Your task to perform on an android device: Search for alienware area 51 on walmart, select the first entry, add it to the cart, then select checkout. Image 0: 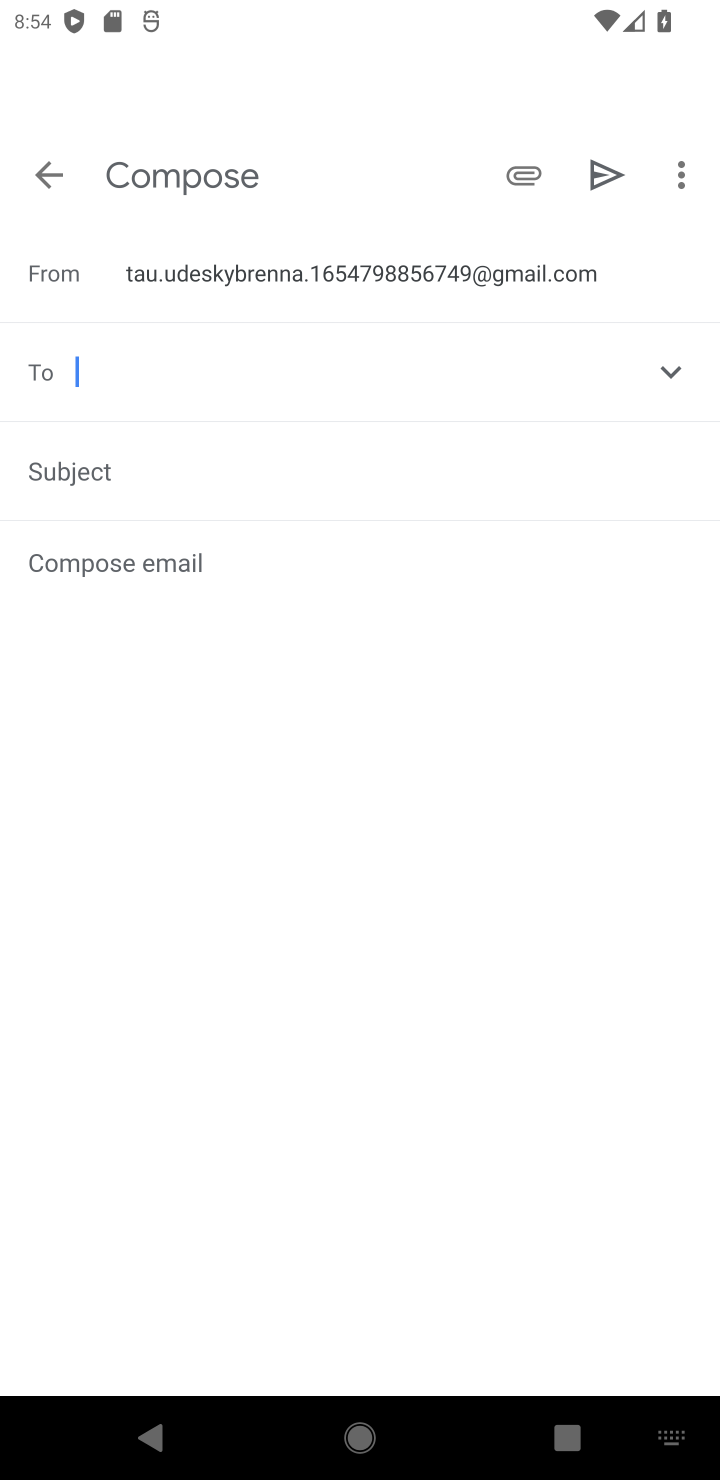
Step 0: press home button
Your task to perform on an android device: Search for alienware area 51 on walmart, select the first entry, add it to the cart, then select checkout. Image 1: 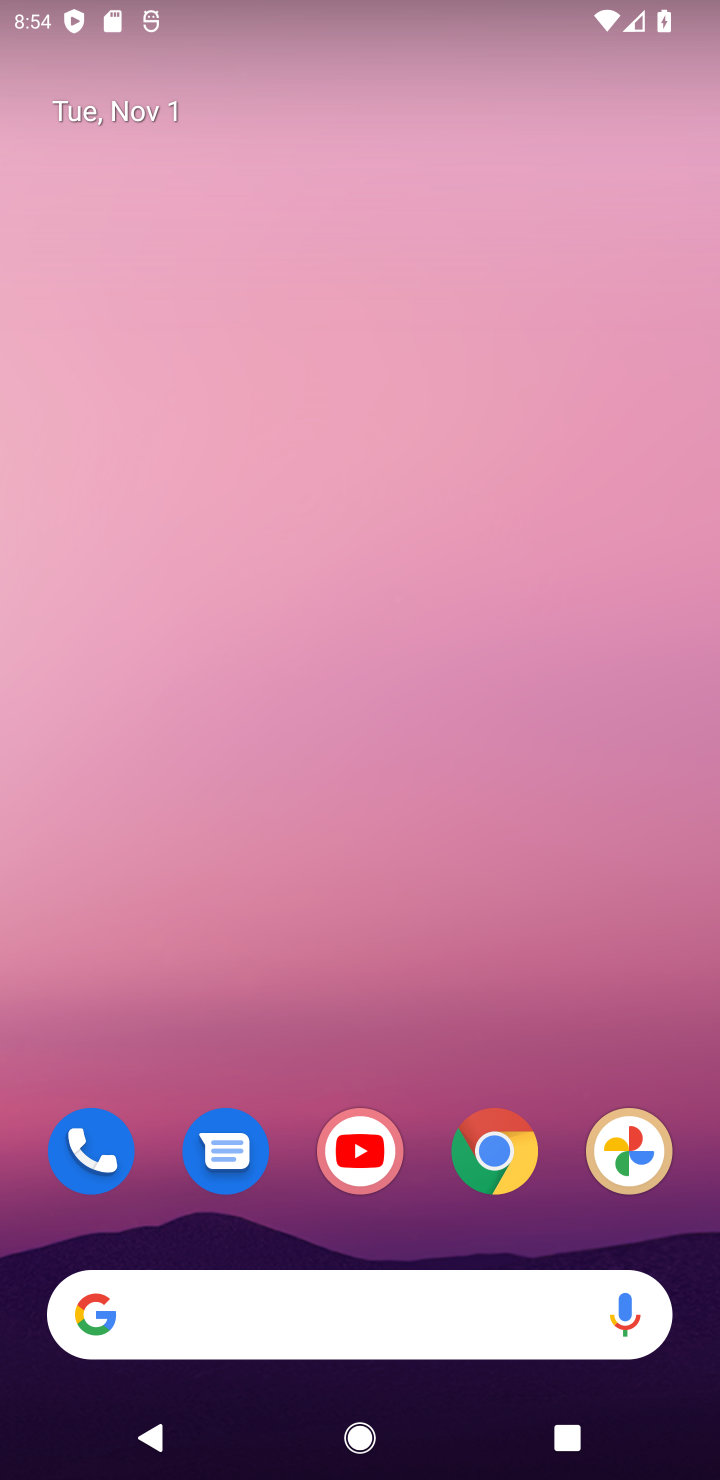
Step 1: click (490, 1171)
Your task to perform on an android device: Search for alienware area 51 on walmart, select the first entry, add it to the cart, then select checkout. Image 2: 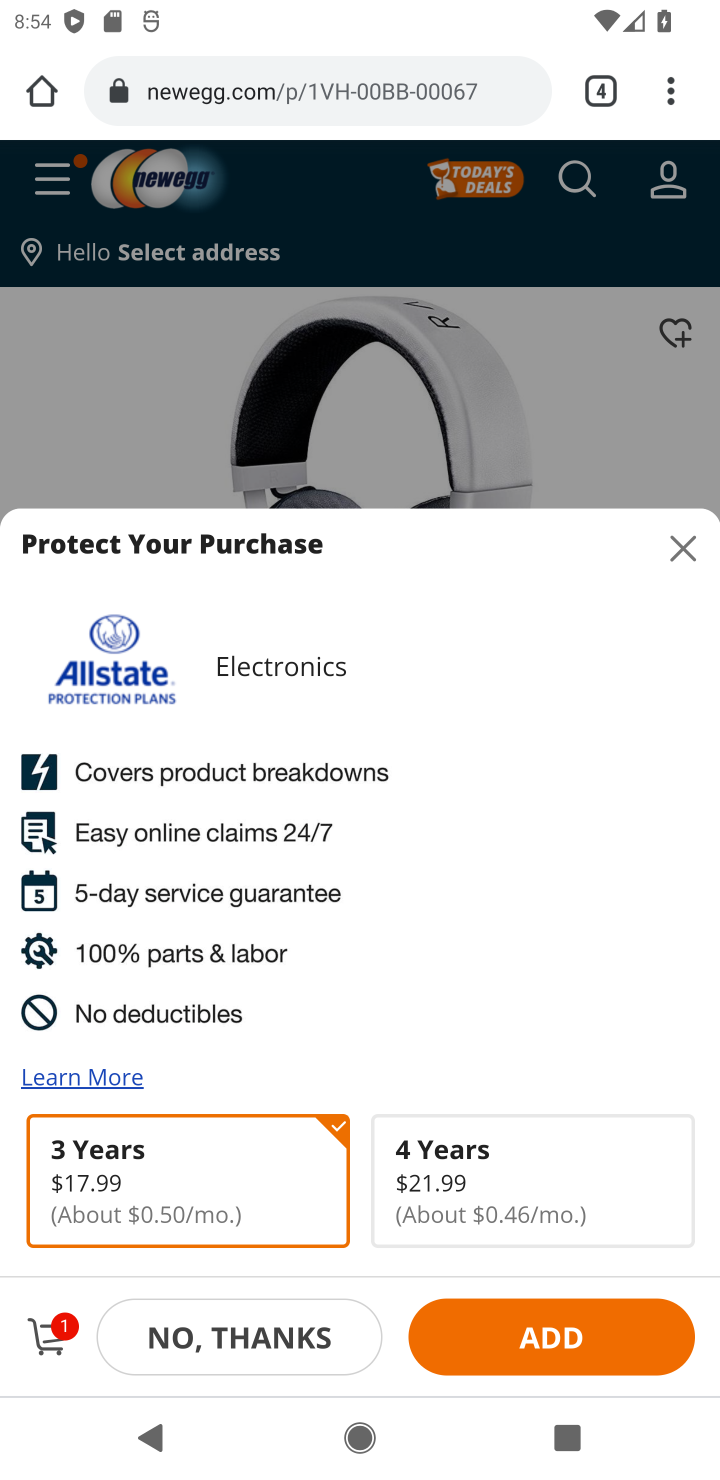
Step 2: click (596, 102)
Your task to perform on an android device: Search for alienware area 51 on walmart, select the first entry, add it to the cart, then select checkout. Image 3: 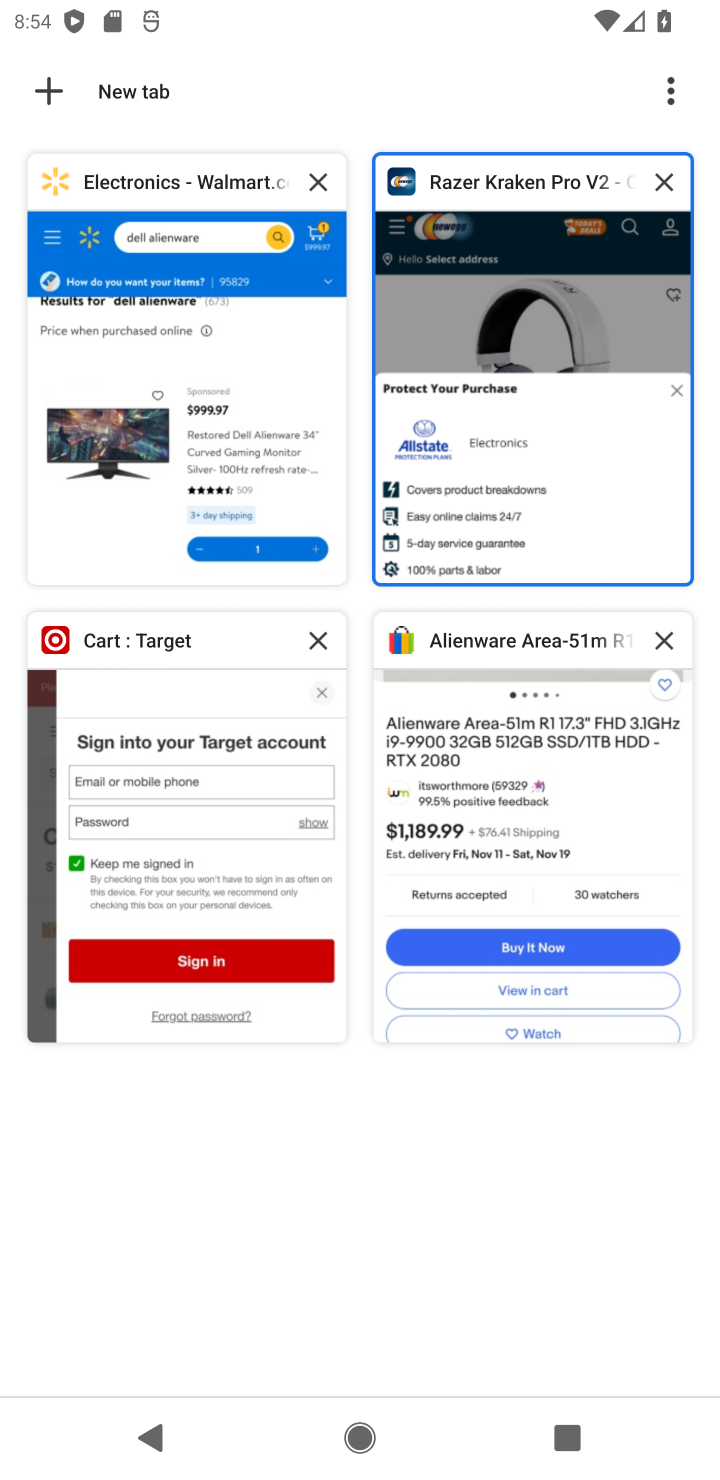
Step 3: click (53, 88)
Your task to perform on an android device: Search for alienware area 51 on walmart, select the first entry, add it to the cart, then select checkout. Image 4: 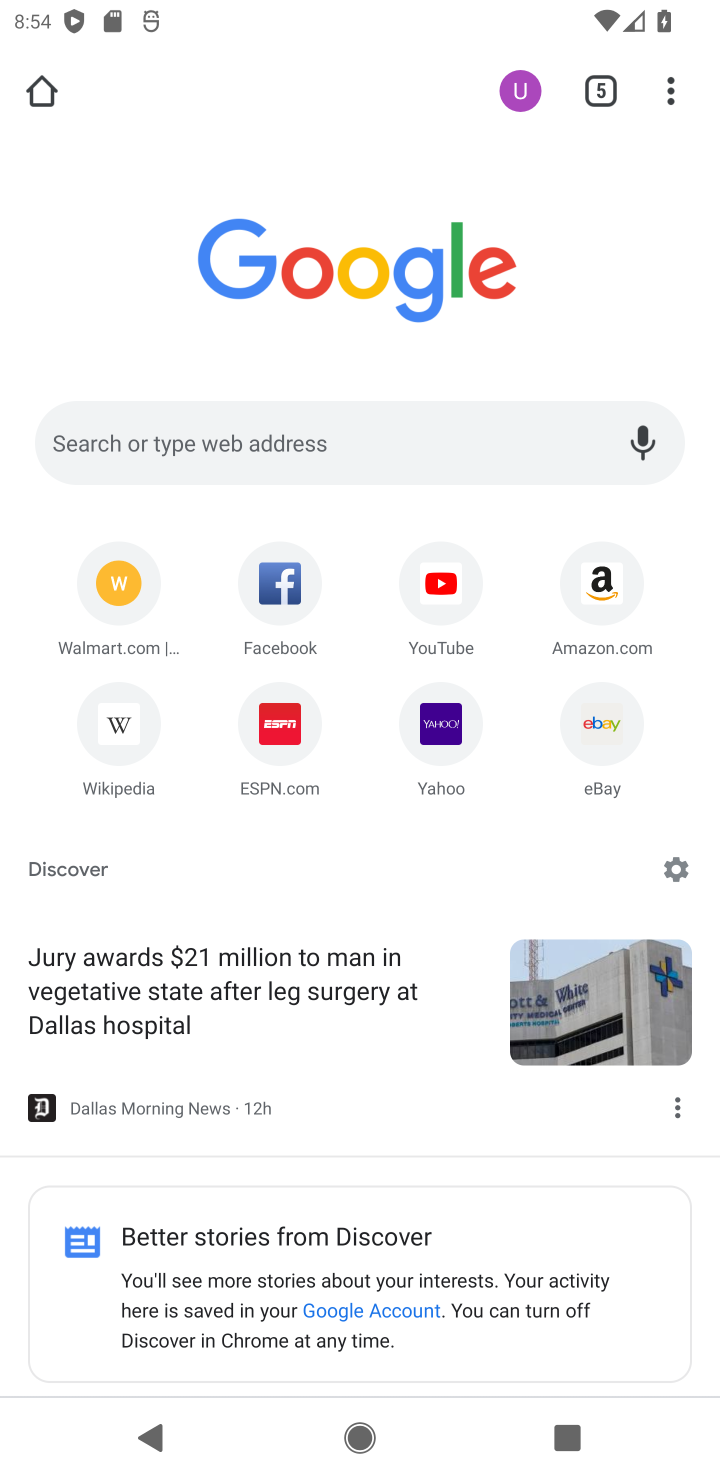
Step 4: click (198, 425)
Your task to perform on an android device: Search for alienware area 51 on walmart, select the first entry, add it to the cart, then select checkout. Image 5: 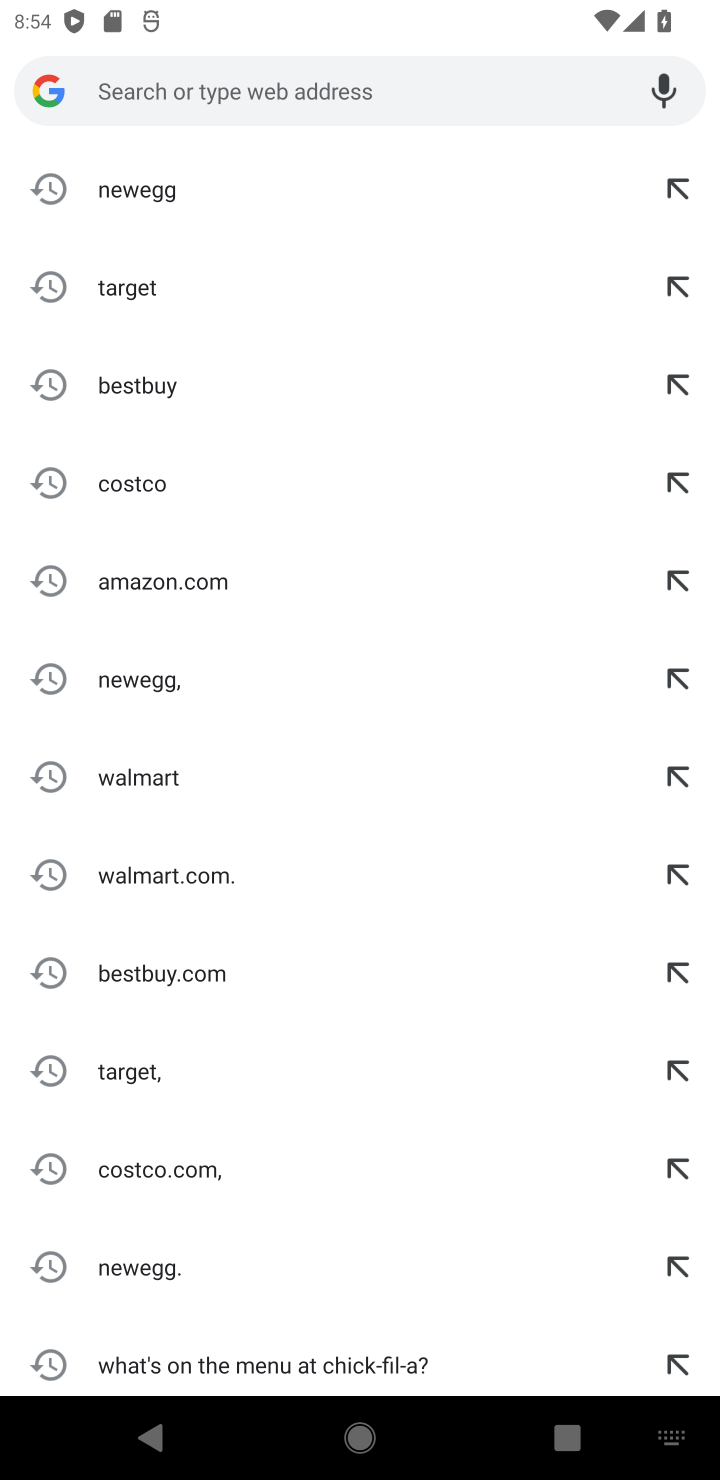
Step 5: type "walmart"
Your task to perform on an android device: Search for alienware area 51 on walmart, select the first entry, add it to the cart, then select checkout. Image 6: 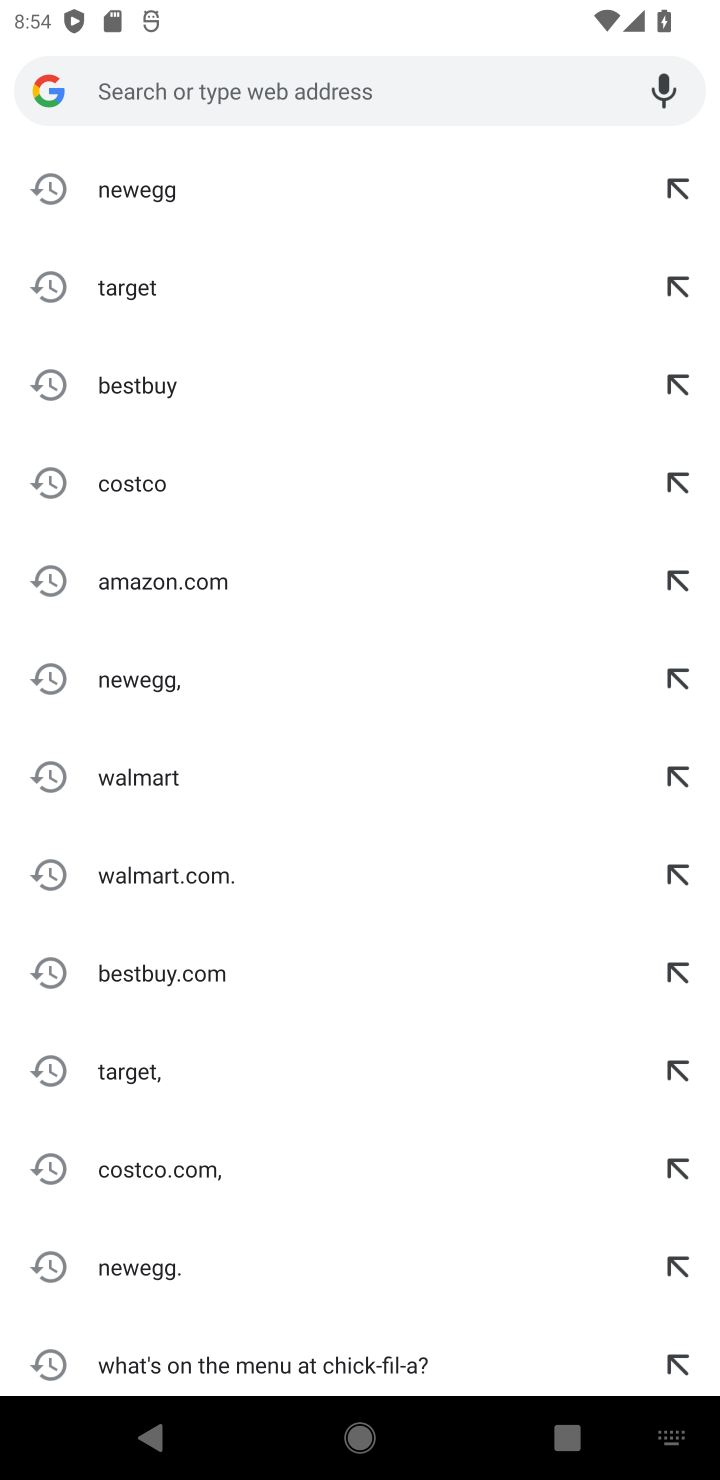
Step 6: click (167, 774)
Your task to perform on an android device: Search for alienware area 51 on walmart, select the first entry, add it to the cart, then select checkout. Image 7: 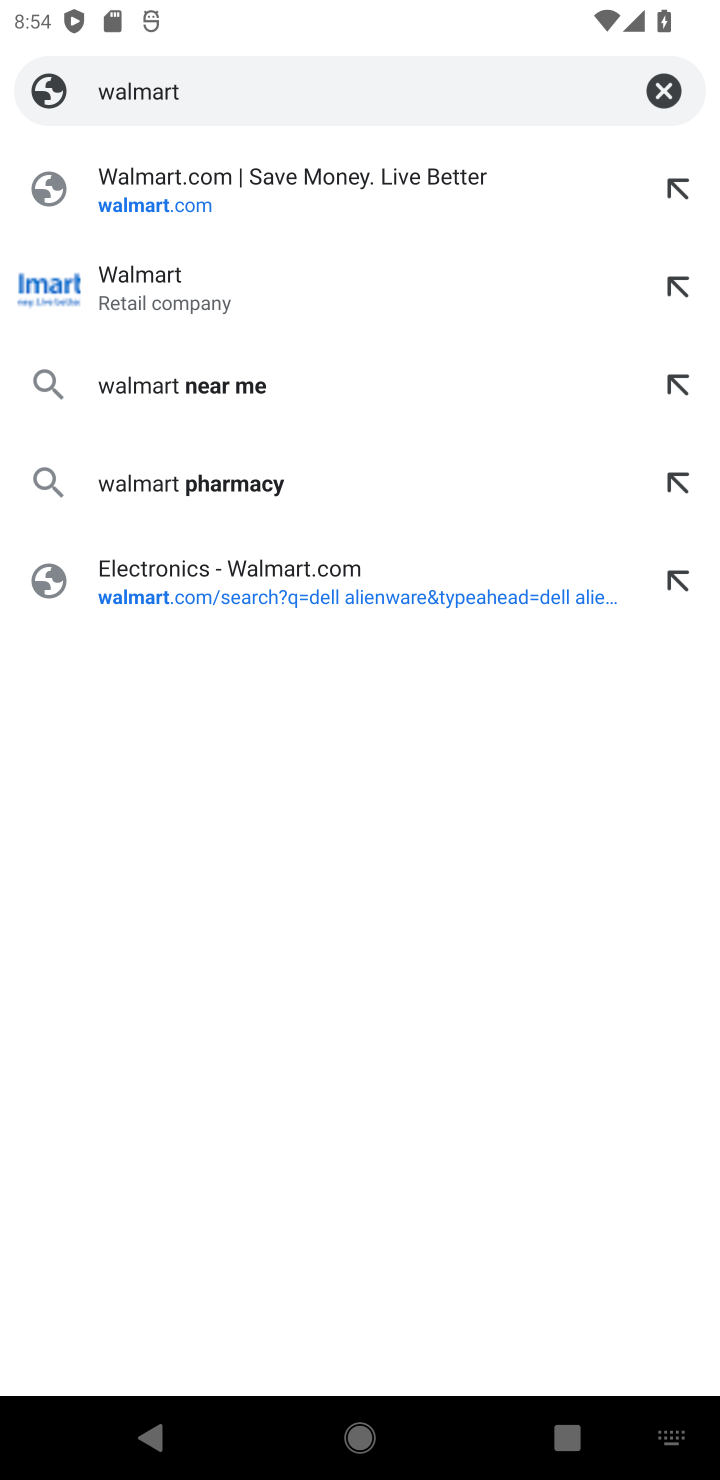
Step 7: click (120, 189)
Your task to perform on an android device: Search for alienware area 51 on walmart, select the first entry, add it to the cart, then select checkout. Image 8: 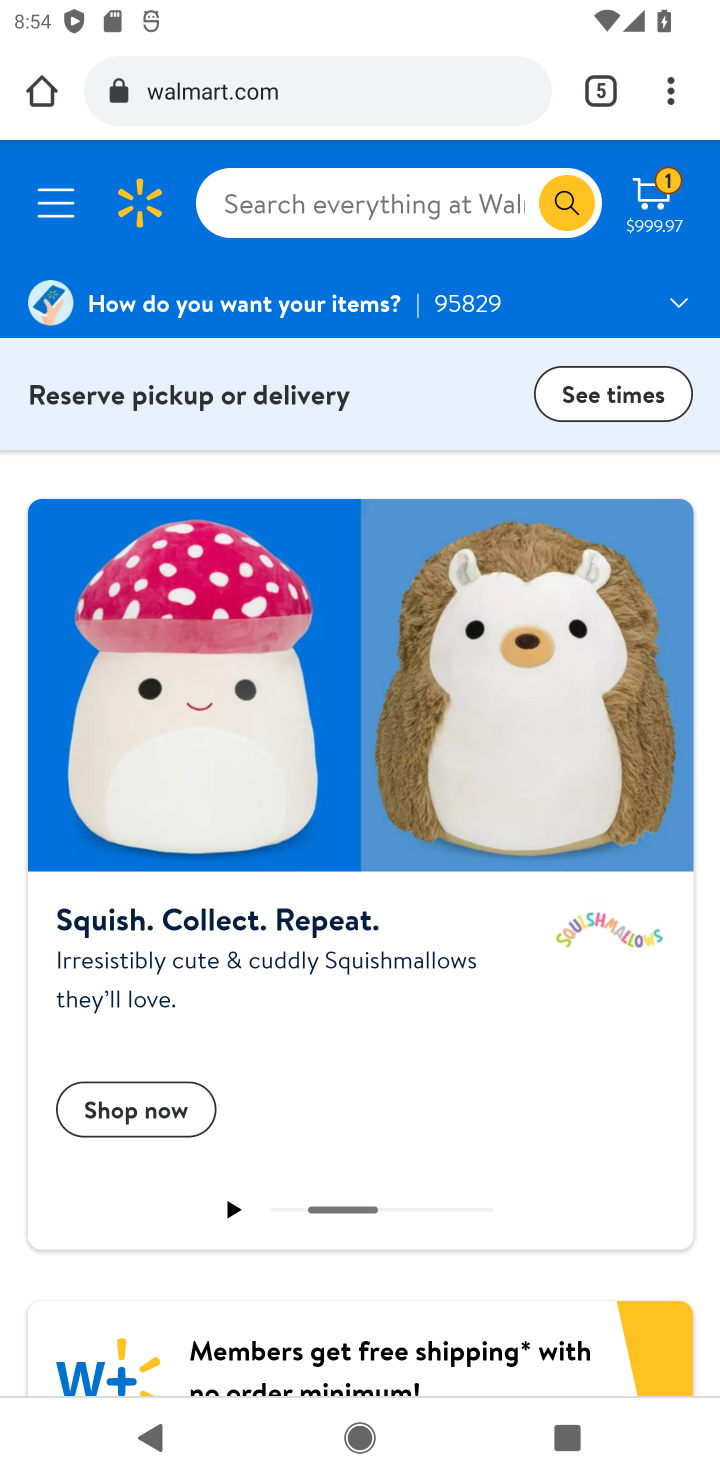
Step 8: click (361, 195)
Your task to perform on an android device: Search for alienware area 51 on walmart, select the first entry, add it to the cart, then select checkout. Image 9: 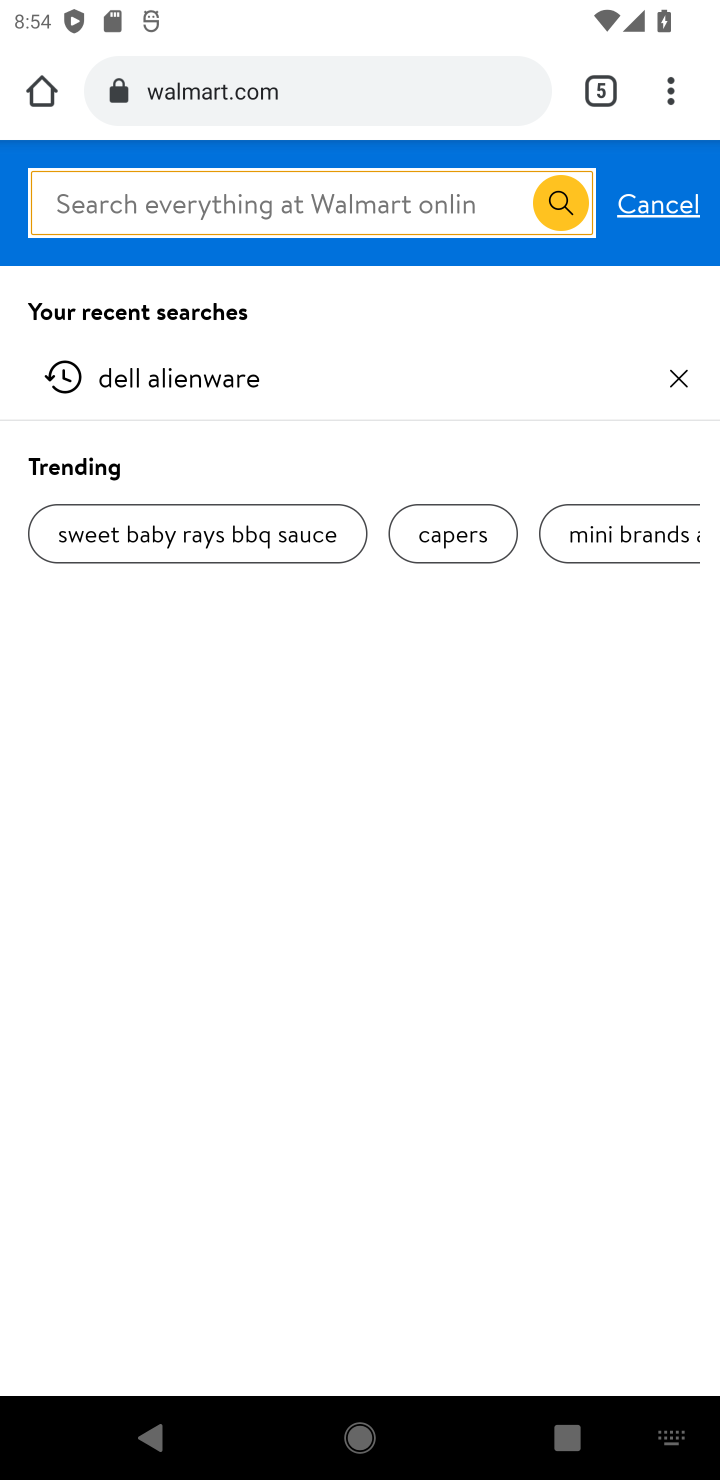
Step 9: type "alienware area 51"
Your task to perform on an android device: Search for alienware area 51 on walmart, select the first entry, add it to the cart, then select checkout. Image 10: 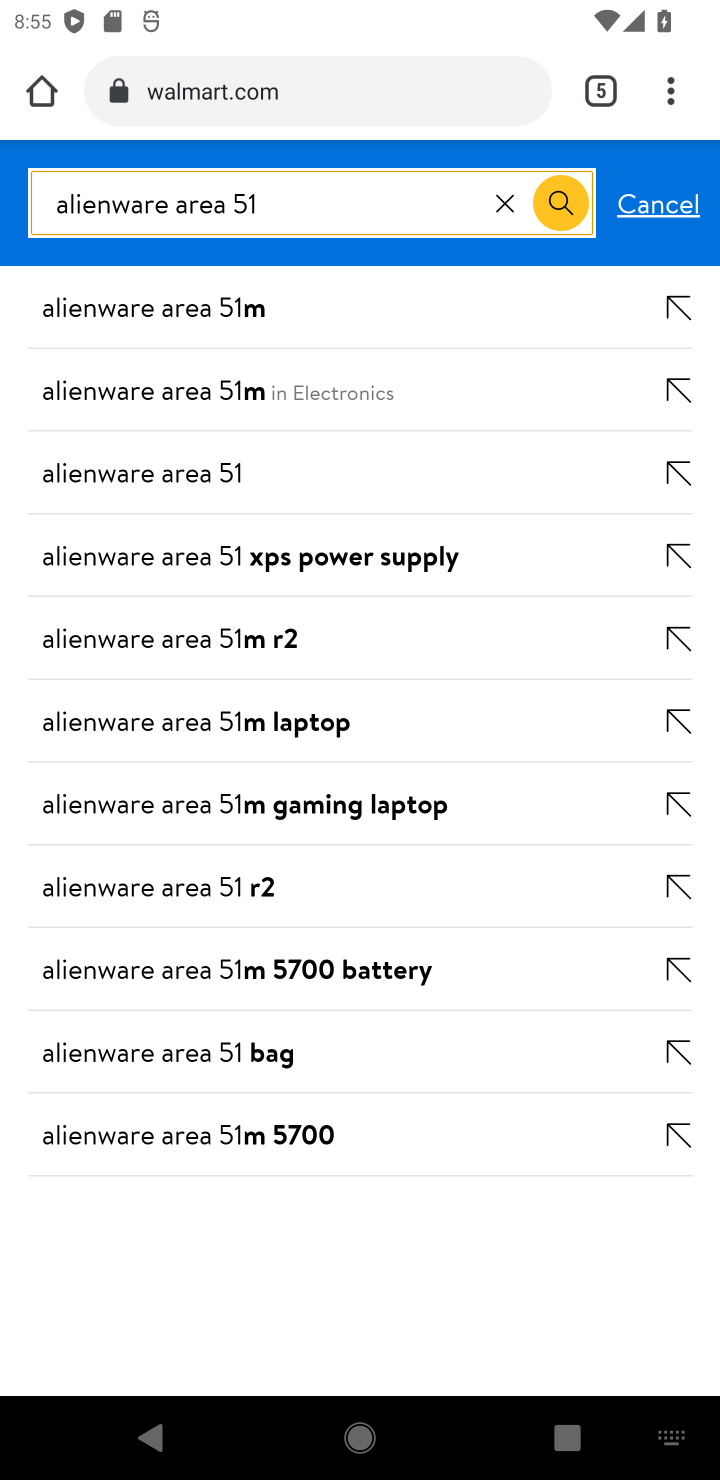
Step 10: click (250, 389)
Your task to perform on an android device: Search for alienware area 51 on walmart, select the first entry, add it to the cart, then select checkout. Image 11: 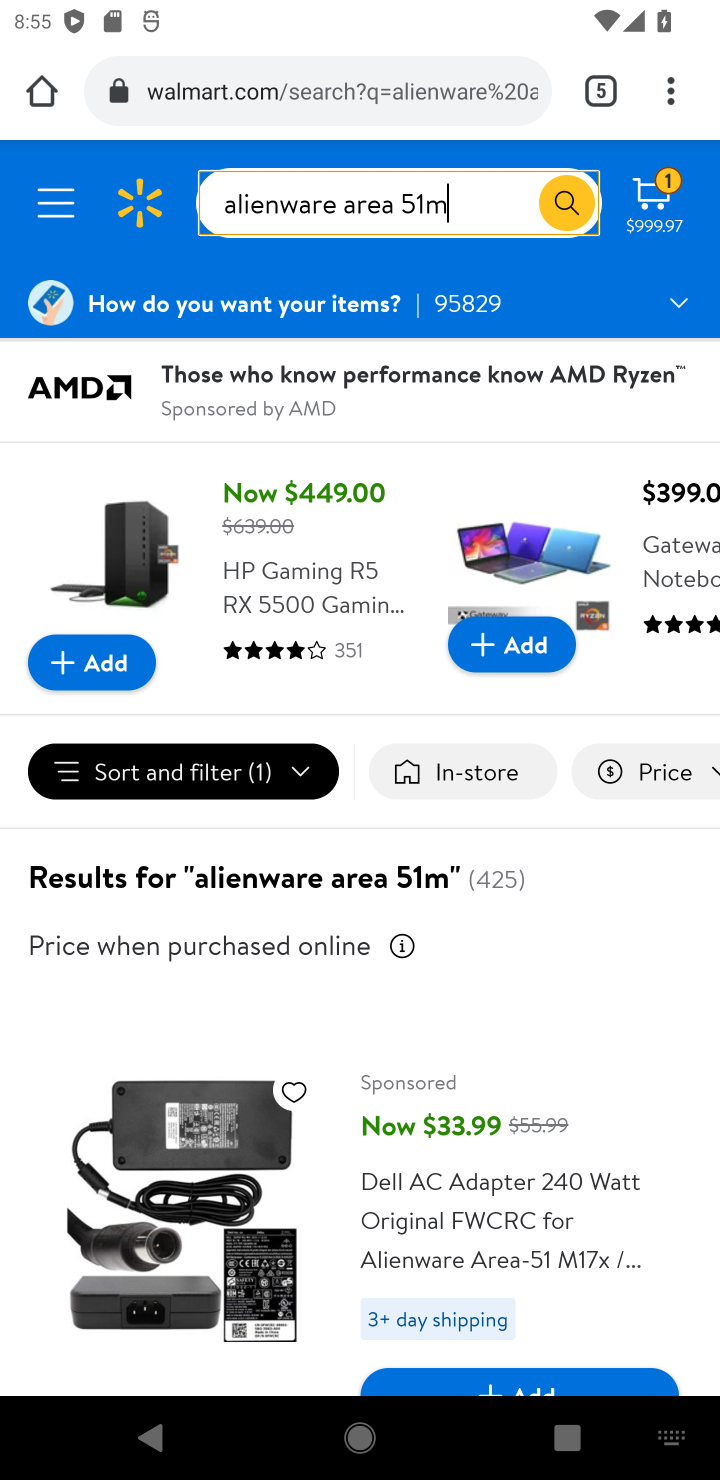
Step 11: click (539, 1383)
Your task to perform on an android device: Search for alienware area 51 on walmart, select the first entry, add it to the cart, then select checkout. Image 12: 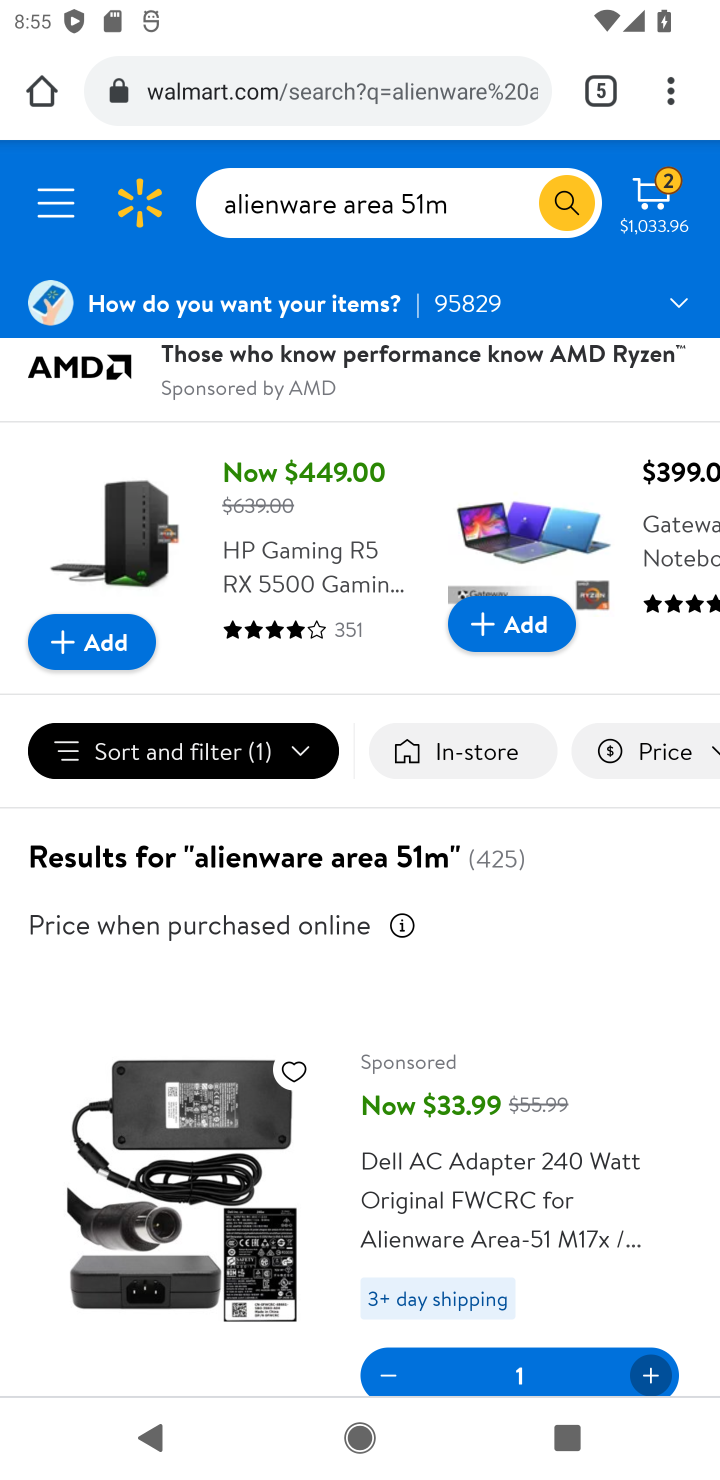
Step 12: click (655, 180)
Your task to perform on an android device: Search for alienware area 51 on walmart, select the first entry, add it to the cart, then select checkout. Image 13: 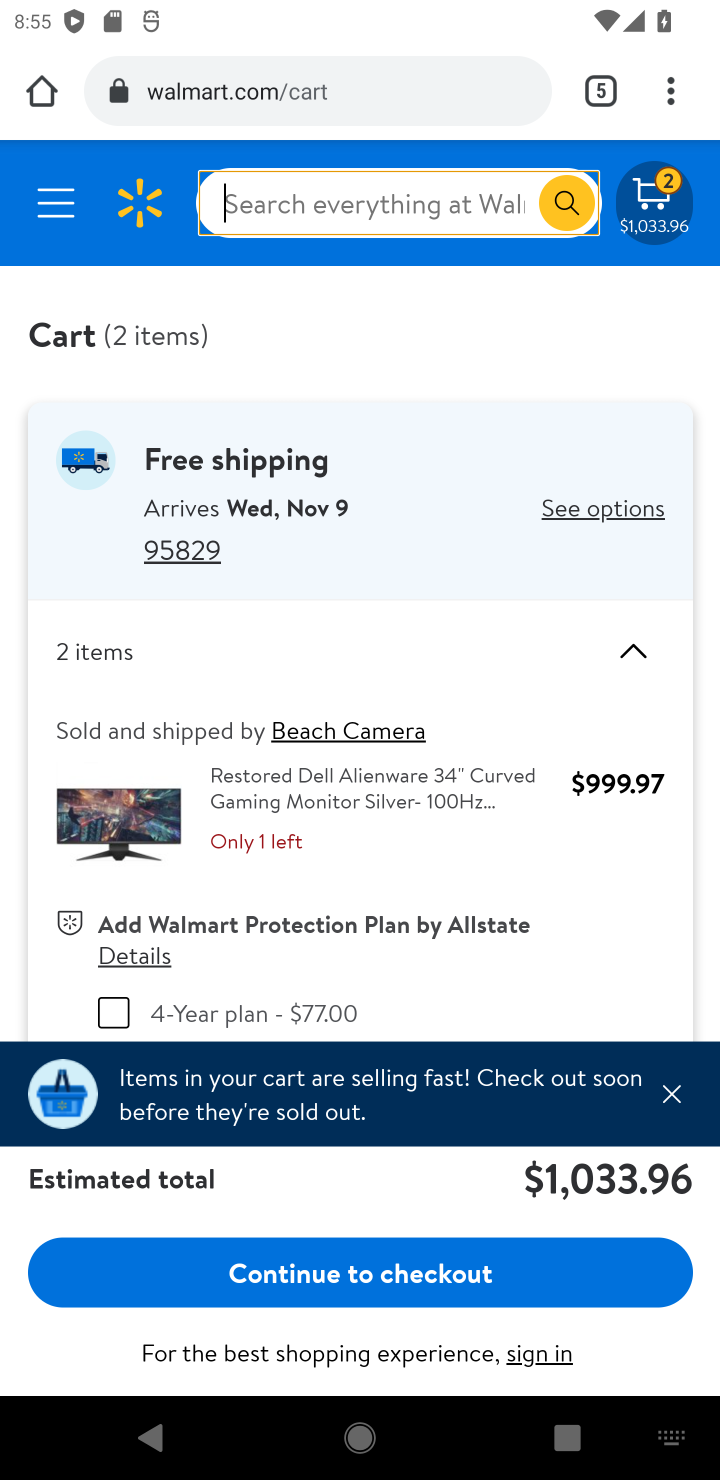
Step 13: click (407, 1282)
Your task to perform on an android device: Search for alienware area 51 on walmart, select the first entry, add it to the cart, then select checkout. Image 14: 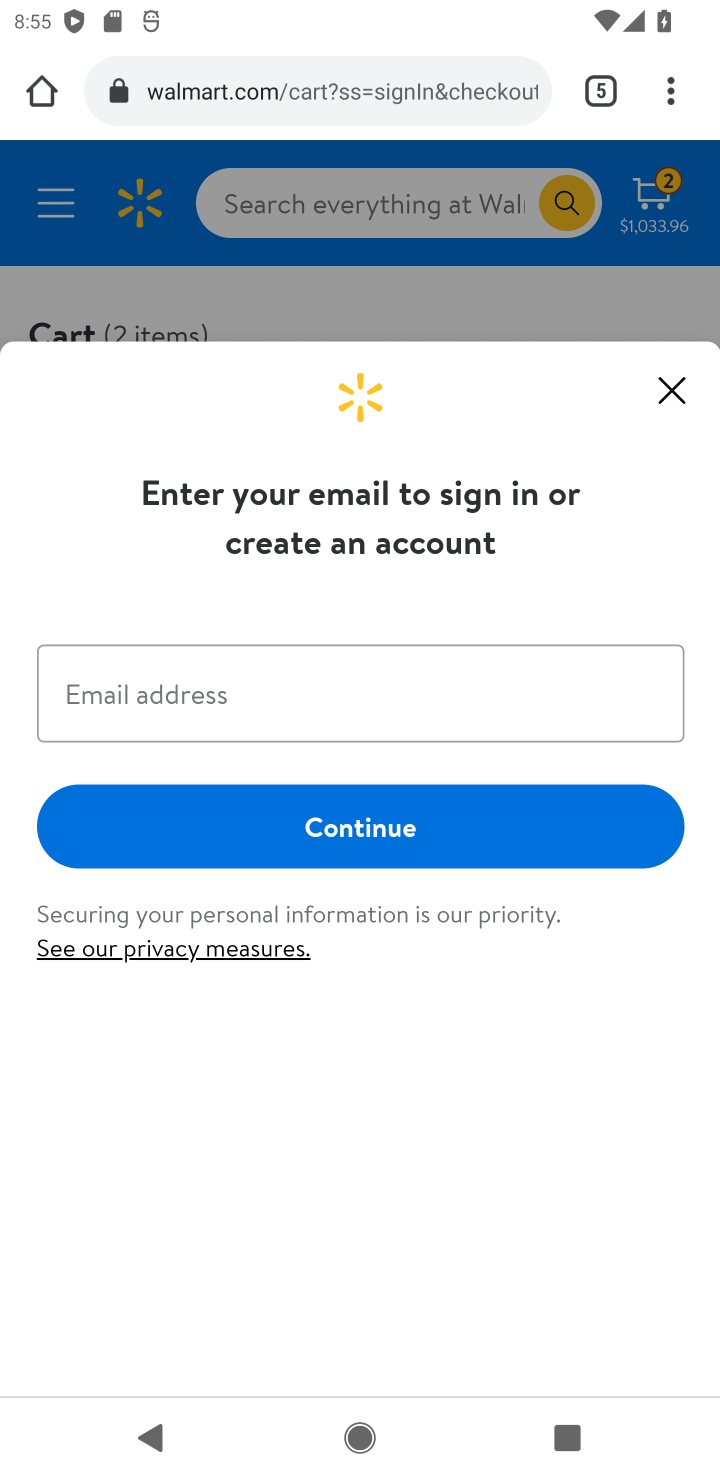
Step 14: task complete